Your task to perform on an android device: turn on javascript in the chrome app Image 0: 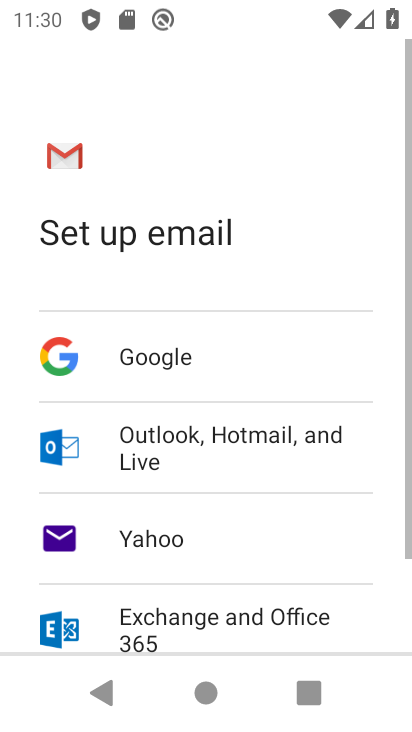
Step 0: press home button
Your task to perform on an android device: turn on javascript in the chrome app Image 1: 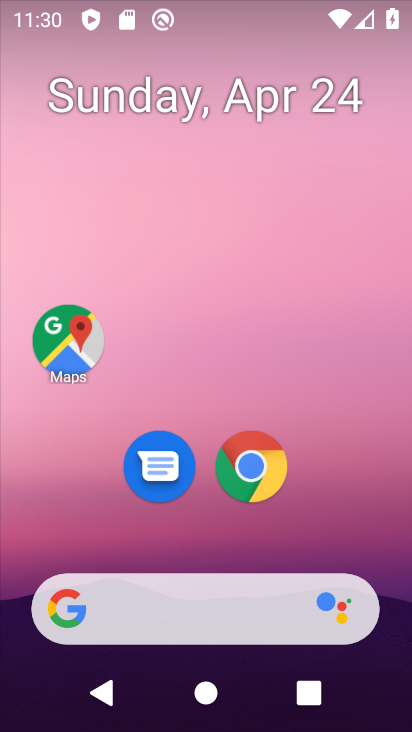
Step 1: click (265, 452)
Your task to perform on an android device: turn on javascript in the chrome app Image 2: 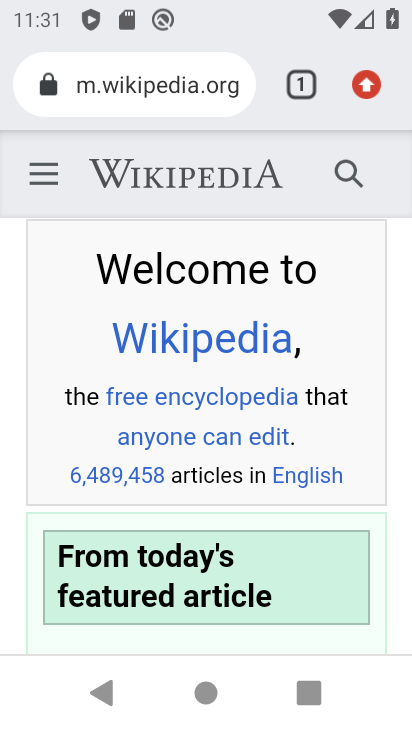
Step 2: click (367, 88)
Your task to perform on an android device: turn on javascript in the chrome app Image 3: 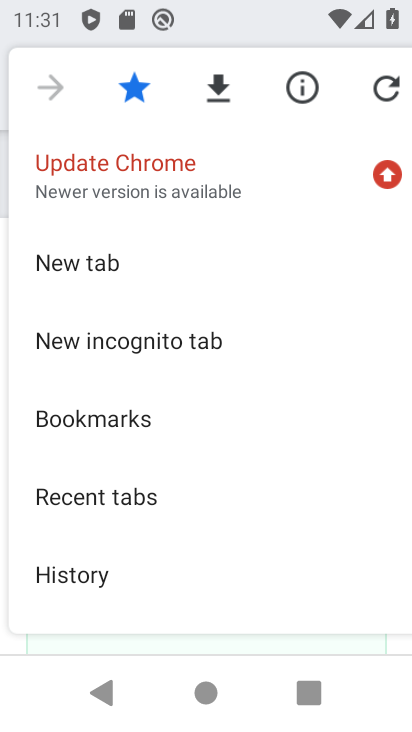
Step 3: drag from (207, 660) to (135, 235)
Your task to perform on an android device: turn on javascript in the chrome app Image 4: 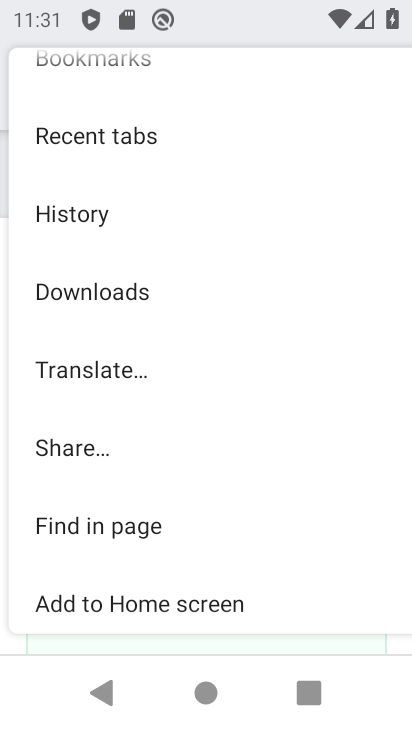
Step 4: drag from (142, 531) to (170, 112)
Your task to perform on an android device: turn on javascript in the chrome app Image 5: 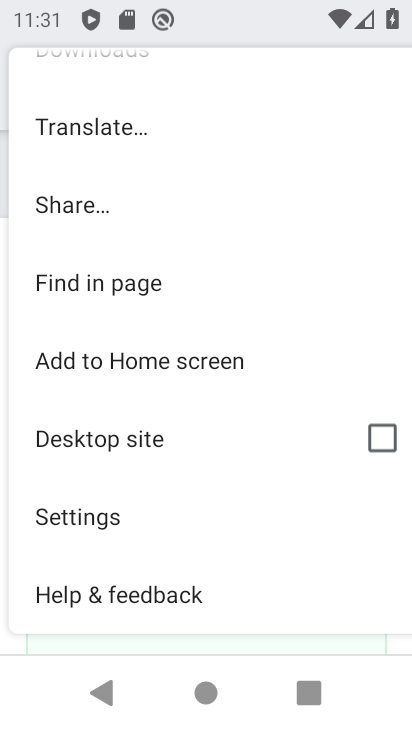
Step 5: click (62, 508)
Your task to perform on an android device: turn on javascript in the chrome app Image 6: 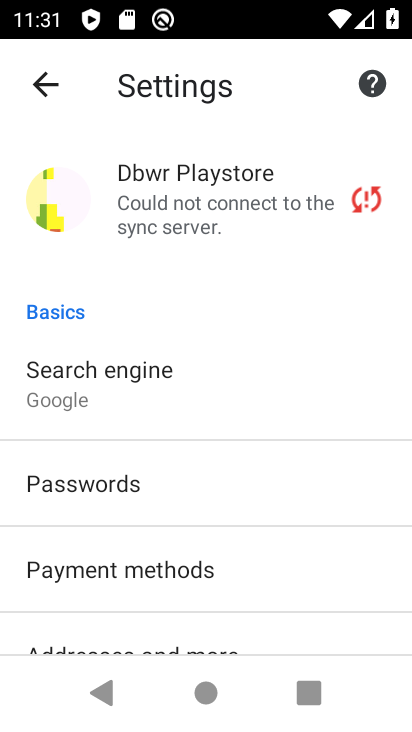
Step 6: drag from (189, 594) to (144, 124)
Your task to perform on an android device: turn on javascript in the chrome app Image 7: 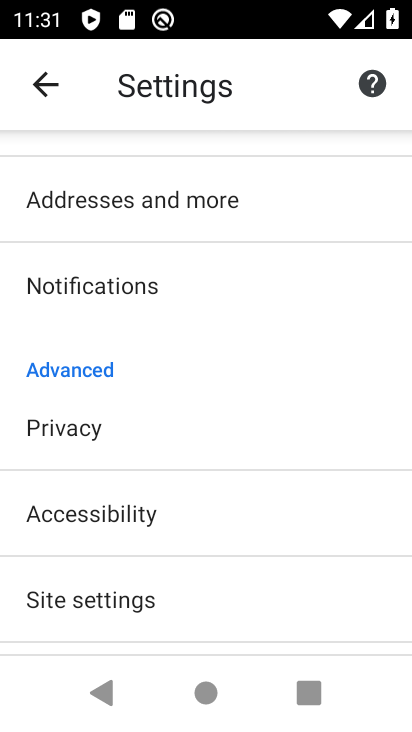
Step 7: click (104, 590)
Your task to perform on an android device: turn on javascript in the chrome app Image 8: 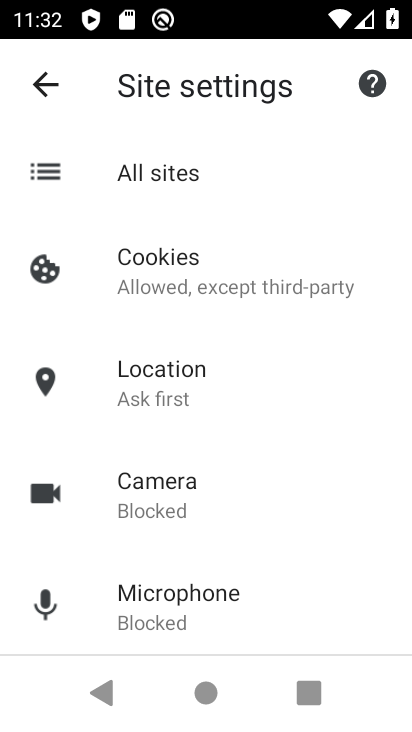
Step 8: drag from (293, 495) to (232, 136)
Your task to perform on an android device: turn on javascript in the chrome app Image 9: 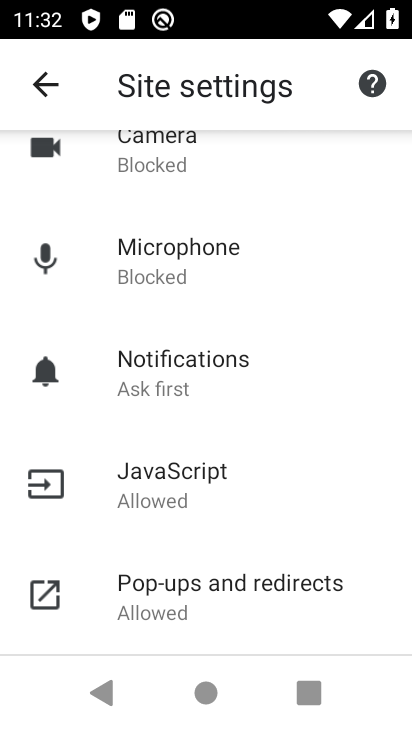
Step 9: click (173, 488)
Your task to perform on an android device: turn on javascript in the chrome app Image 10: 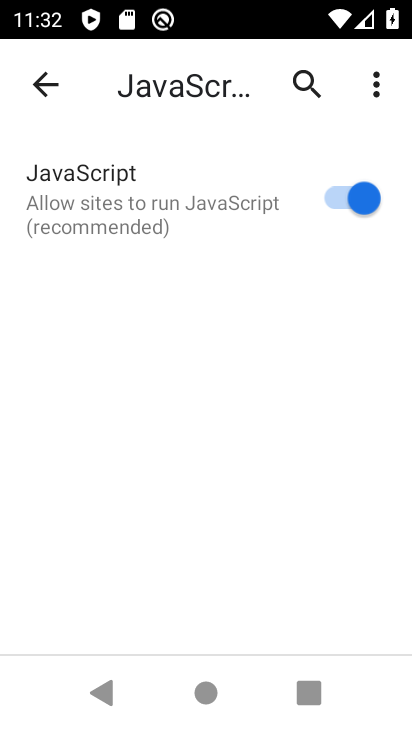
Step 10: task complete